Your task to perform on an android device: turn on the 24-hour format for clock Image 0: 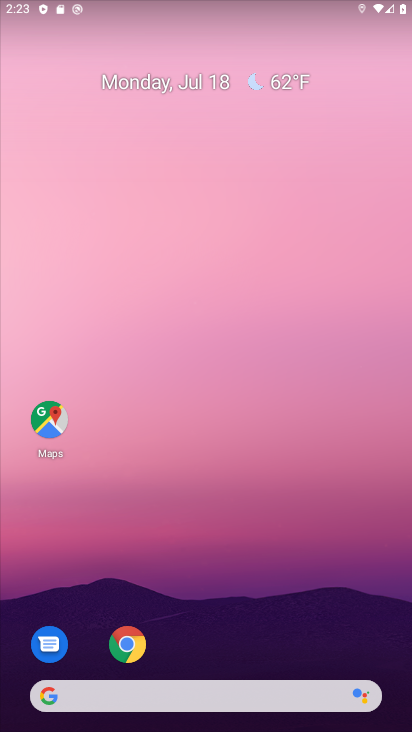
Step 0: drag from (232, 641) to (255, 224)
Your task to perform on an android device: turn on the 24-hour format for clock Image 1: 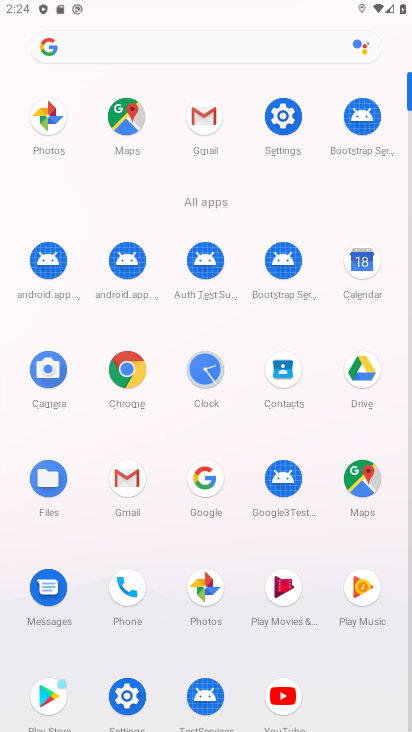
Step 1: click (202, 356)
Your task to perform on an android device: turn on the 24-hour format for clock Image 2: 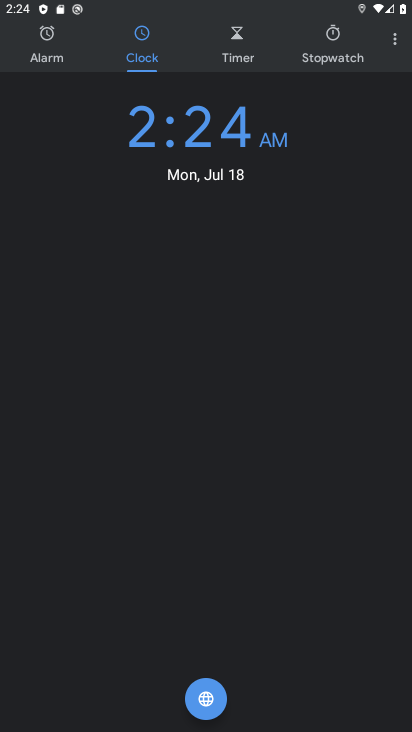
Step 2: click (398, 42)
Your task to perform on an android device: turn on the 24-hour format for clock Image 3: 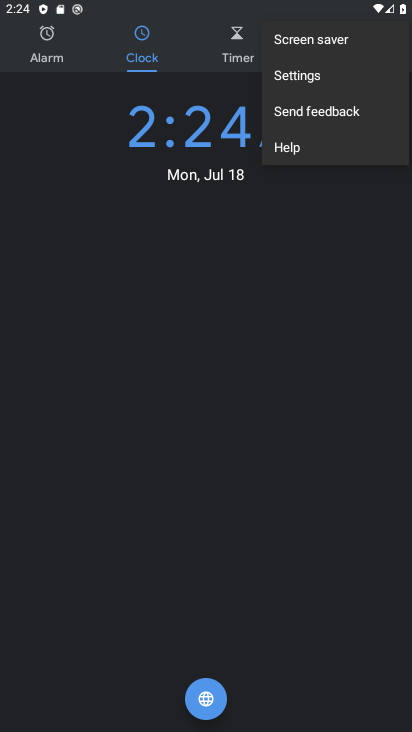
Step 3: click (305, 71)
Your task to perform on an android device: turn on the 24-hour format for clock Image 4: 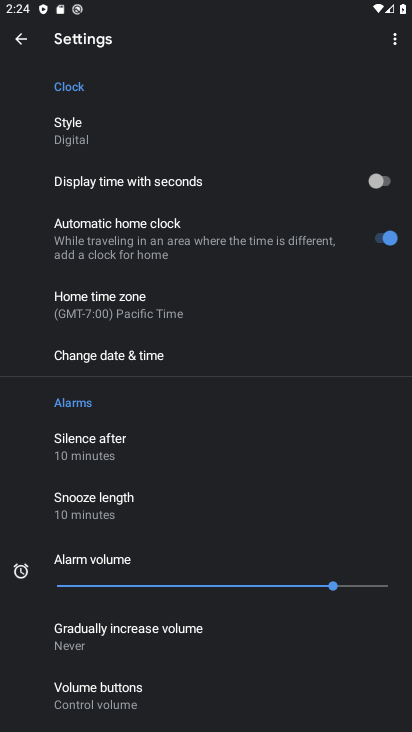
Step 4: drag from (164, 537) to (148, 451)
Your task to perform on an android device: turn on the 24-hour format for clock Image 5: 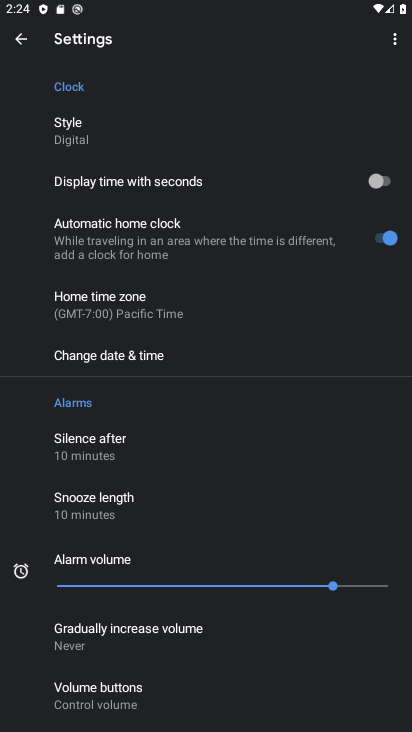
Step 5: drag from (210, 594) to (167, 414)
Your task to perform on an android device: turn on the 24-hour format for clock Image 6: 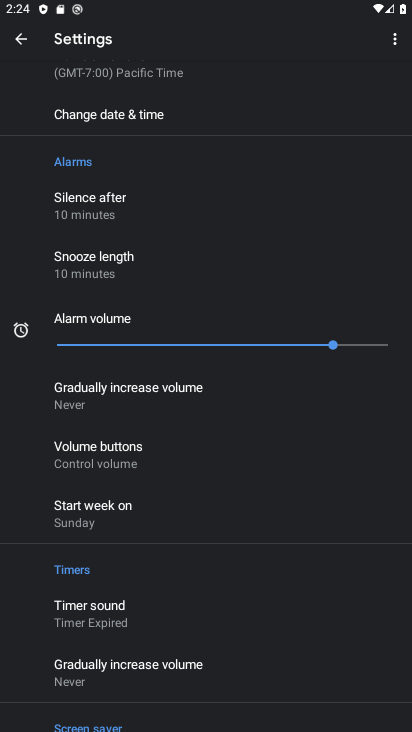
Step 6: drag from (112, 423) to (112, 270)
Your task to perform on an android device: turn on the 24-hour format for clock Image 7: 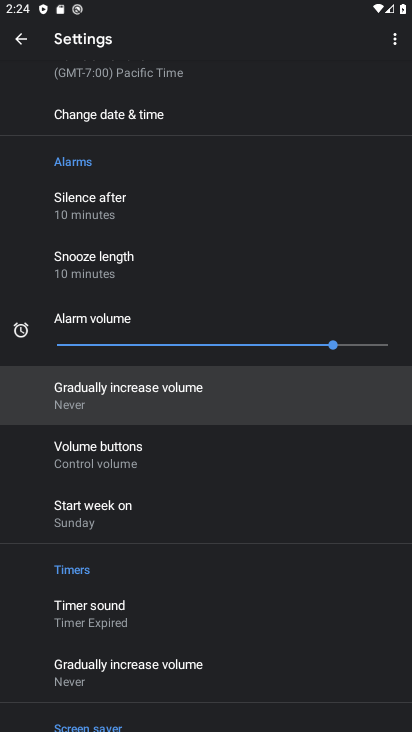
Step 7: click (148, 302)
Your task to perform on an android device: turn on the 24-hour format for clock Image 8: 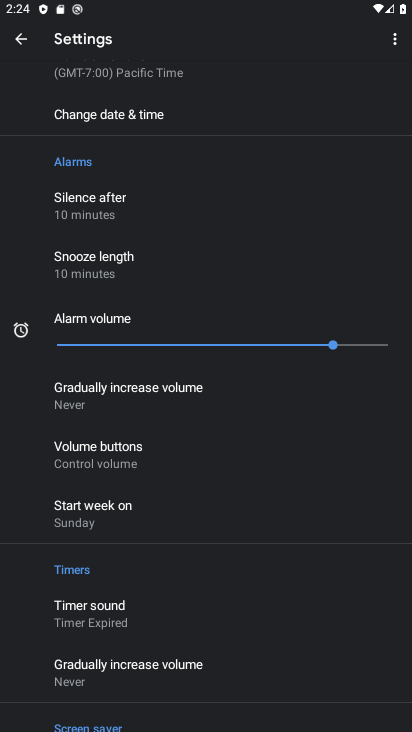
Step 8: drag from (89, 222) to (98, 331)
Your task to perform on an android device: turn on the 24-hour format for clock Image 9: 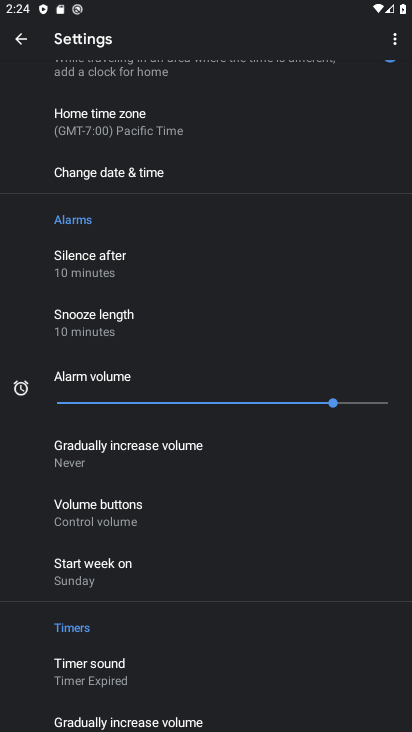
Step 9: click (119, 179)
Your task to perform on an android device: turn on the 24-hour format for clock Image 10: 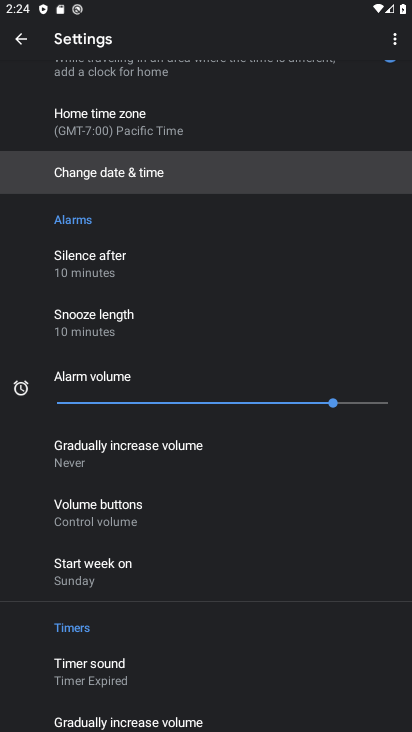
Step 10: click (118, 178)
Your task to perform on an android device: turn on the 24-hour format for clock Image 11: 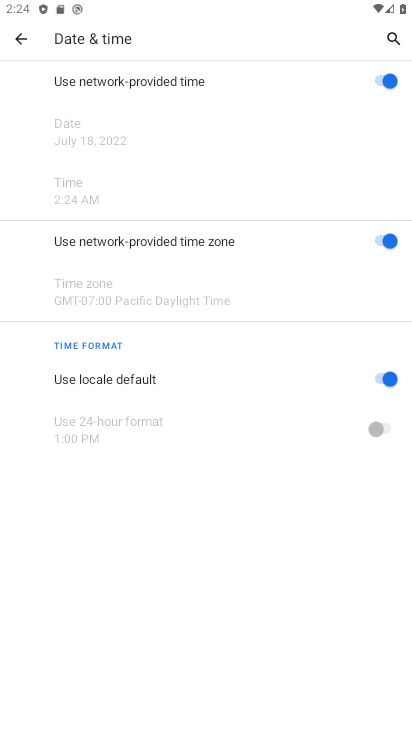
Step 11: click (378, 414)
Your task to perform on an android device: turn on the 24-hour format for clock Image 12: 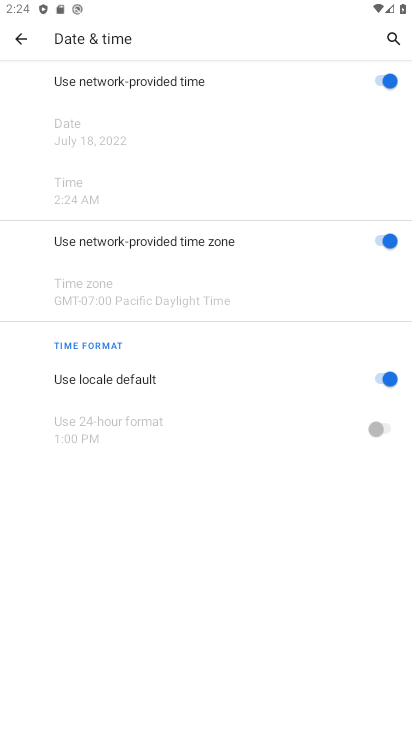
Step 12: click (388, 376)
Your task to perform on an android device: turn on the 24-hour format for clock Image 13: 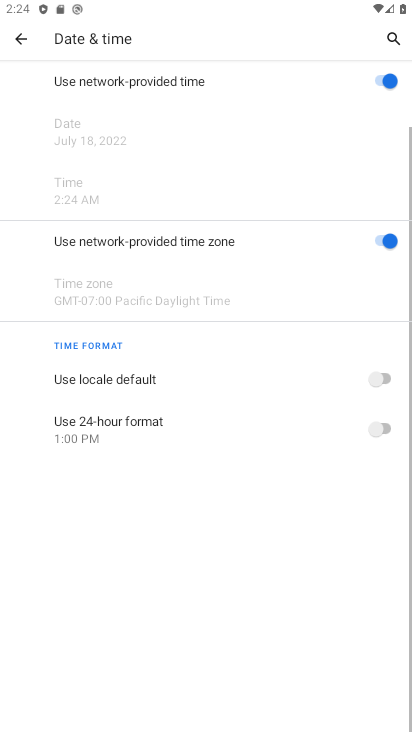
Step 13: click (379, 422)
Your task to perform on an android device: turn on the 24-hour format for clock Image 14: 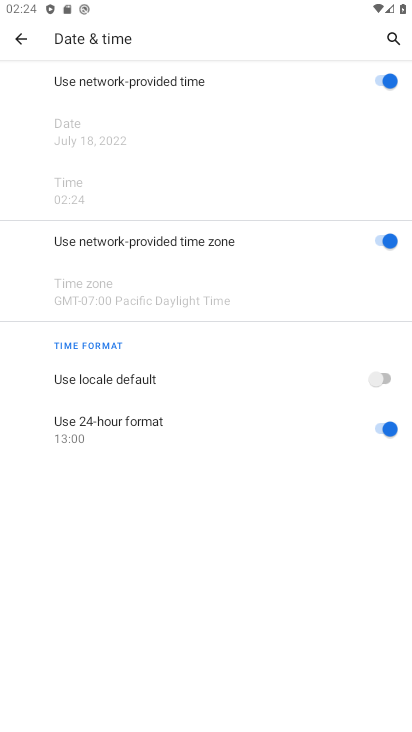
Step 14: task complete